Your task to perform on an android device: delete location history Image 0: 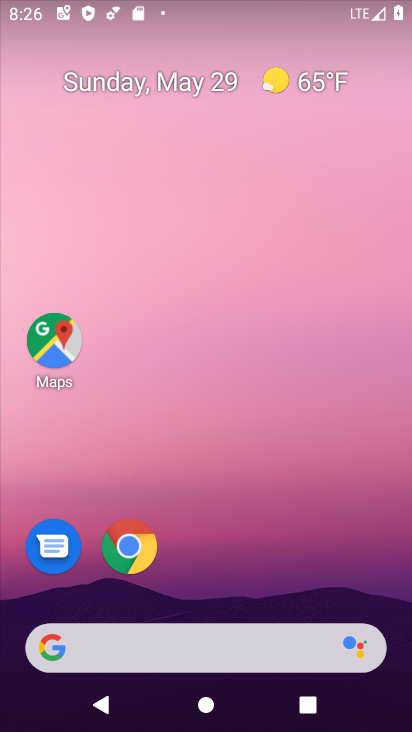
Step 0: drag from (272, 565) to (351, 91)
Your task to perform on an android device: delete location history Image 1: 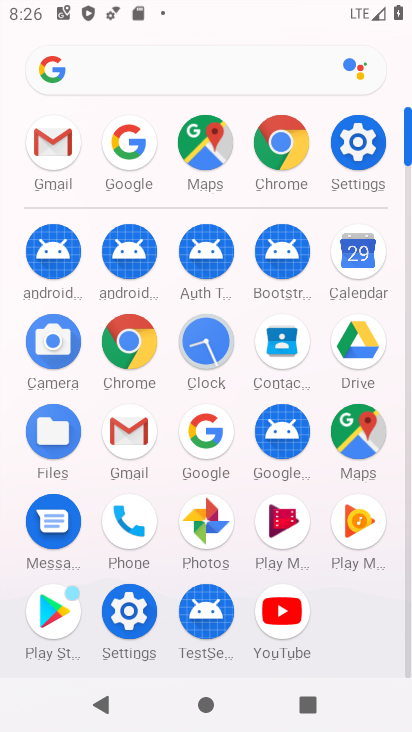
Step 1: click (362, 149)
Your task to perform on an android device: delete location history Image 2: 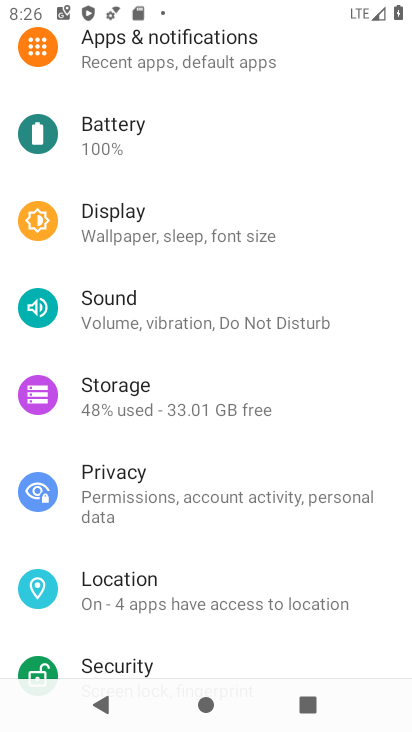
Step 2: click (133, 608)
Your task to perform on an android device: delete location history Image 3: 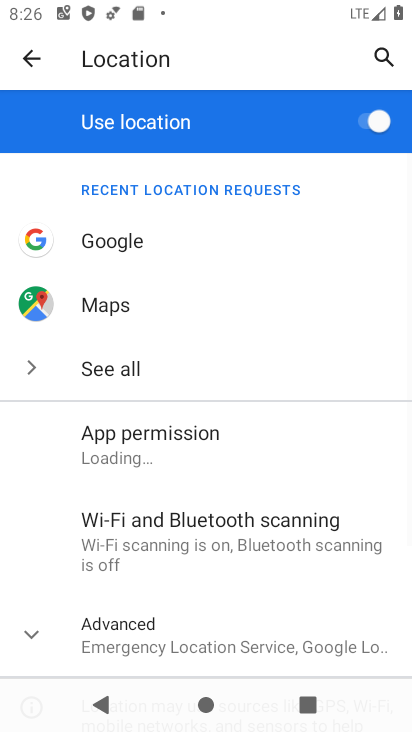
Step 3: click (149, 641)
Your task to perform on an android device: delete location history Image 4: 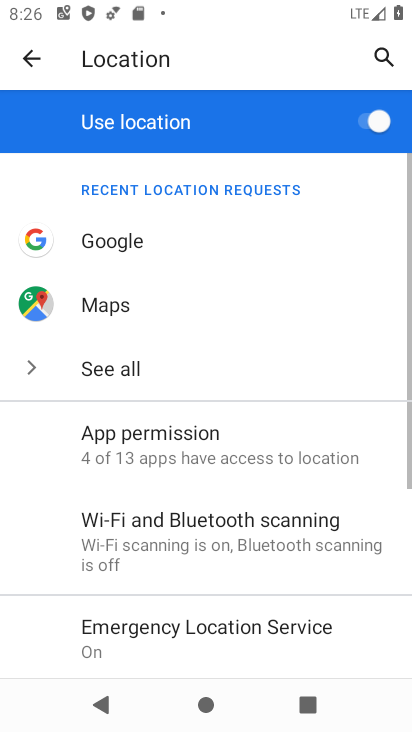
Step 4: drag from (149, 649) to (254, 151)
Your task to perform on an android device: delete location history Image 5: 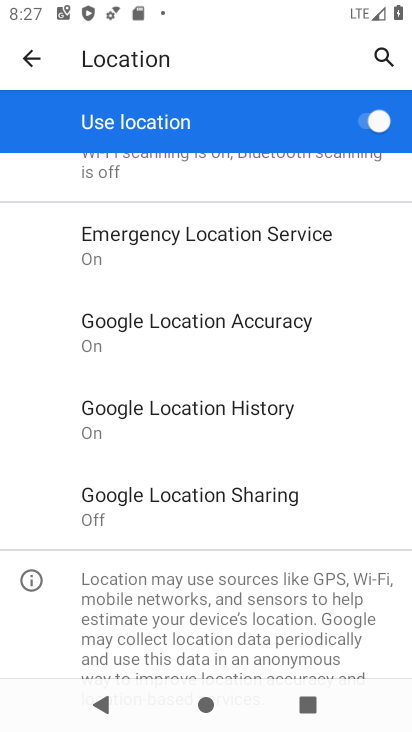
Step 5: click (162, 674)
Your task to perform on an android device: delete location history Image 6: 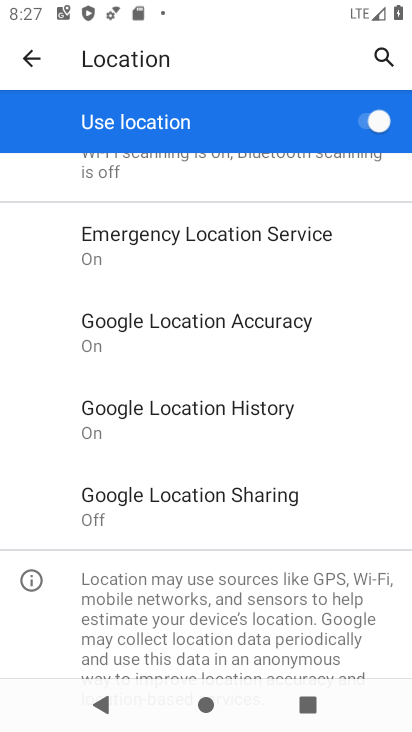
Step 6: click (216, 402)
Your task to perform on an android device: delete location history Image 7: 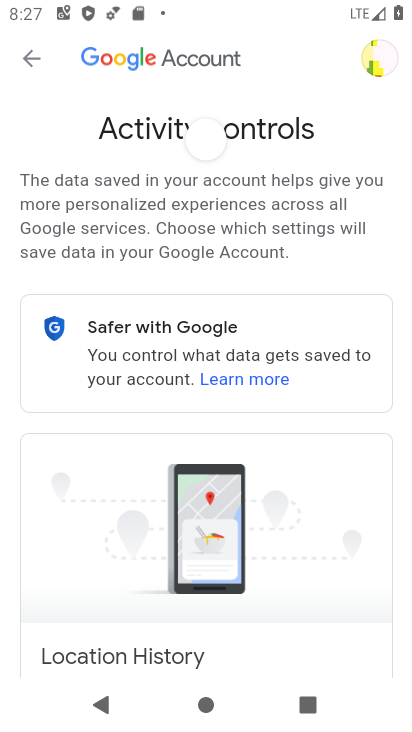
Step 7: drag from (189, 656) to (234, 231)
Your task to perform on an android device: delete location history Image 8: 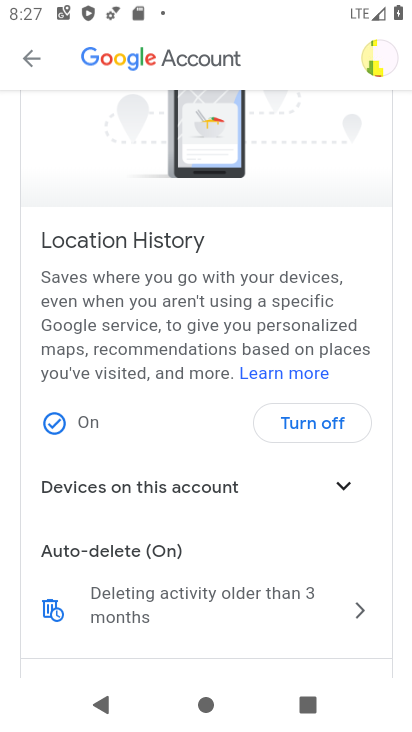
Step 8: click (259, 602)
Your task to perform on an android device: delete location history Image 9: 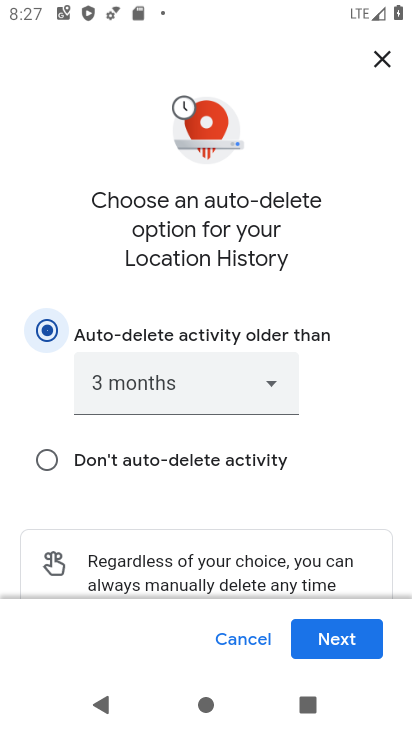
Step 9: click (339, 635)
Your task to perform on an android device: delete location history Image 10: 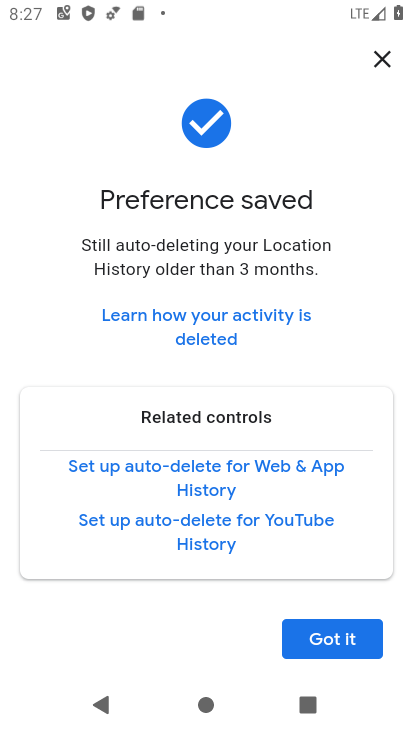
Step 10: click (338, 636)
Your task to perform on an android device: delete location history Image 11: 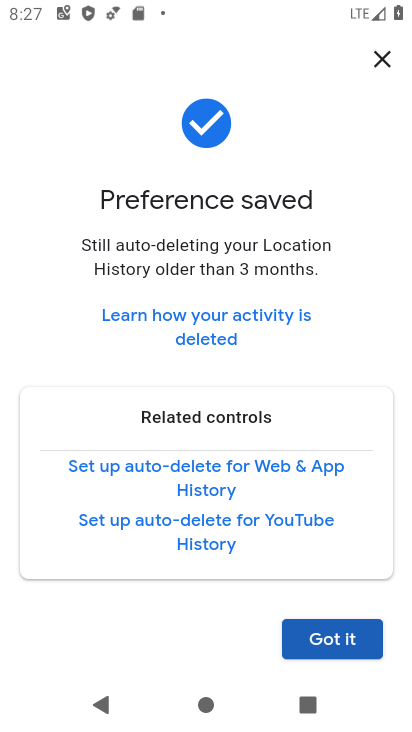
Step 11: click (319, 650)
Your task to perform on an android device: delete location history Image 12: 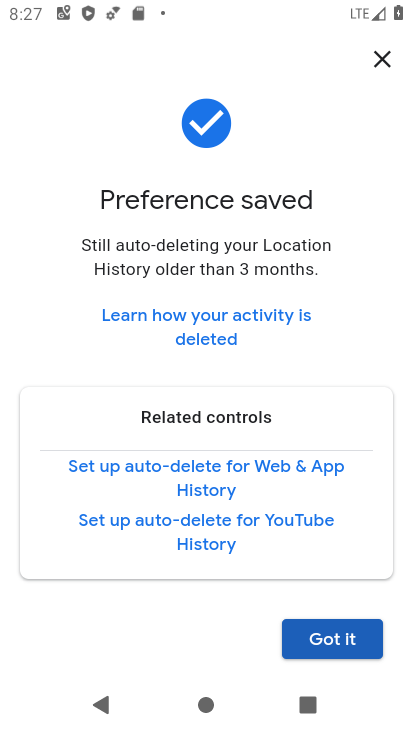
Step 12: click (357, 645)
Your task to perform on an android device: delete location history Image 13: 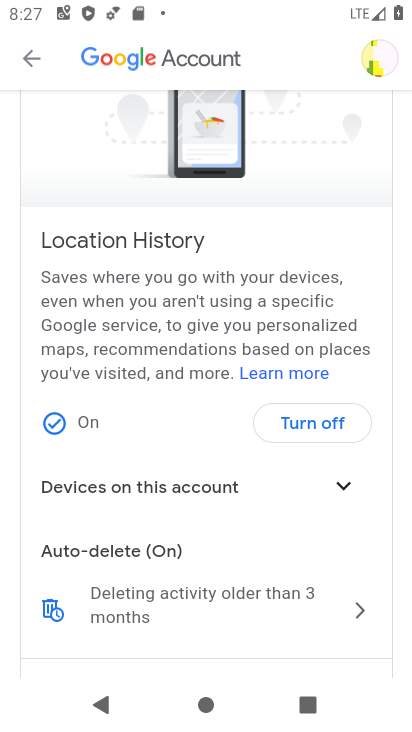
Step 13: task complete